Your task to perform on an android device: Open the stopwatch Image 0: 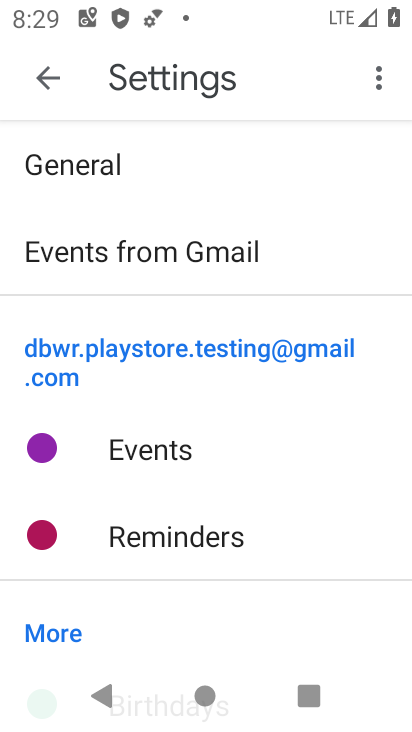
Step 0: press home button
Your task to perform on an android device: Open the stopwatch Image 1: 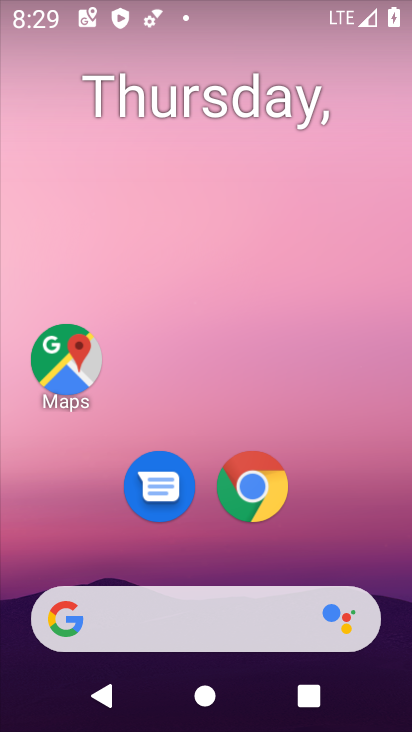
Step 1: drag from (274, 579) to (183, 6)
Your task to perform on an android device: Open the stopwatch Image 2: 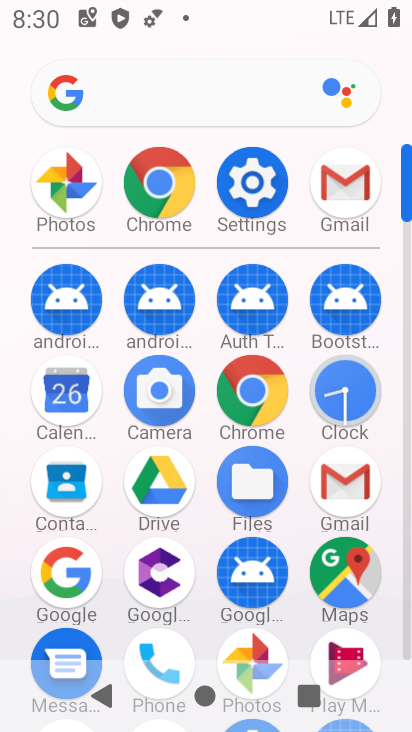
Step 2: click (374, 392)
Your task to perform on an android device: Open the stopwatch Image 3: 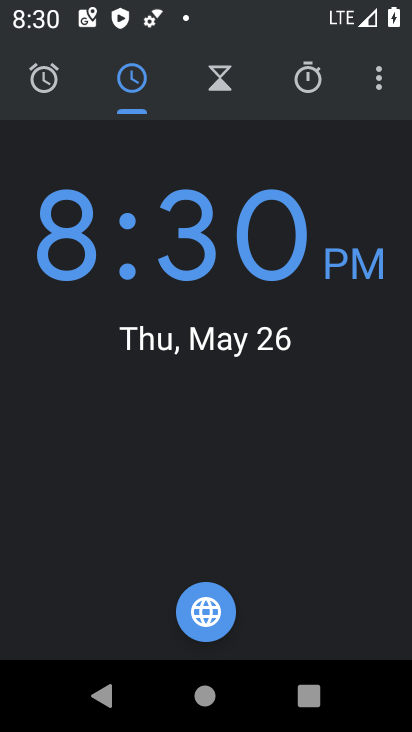
Step 3: click (322, 80)
Your task to perform on an android device: Open the stopwatch Image 4: 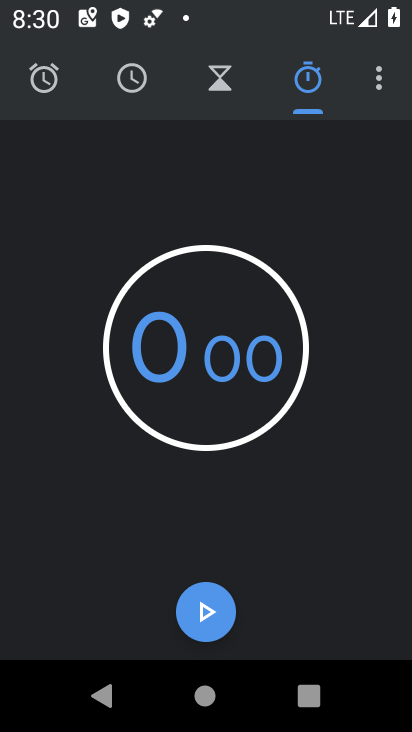
Step 4: task complete